Your task to perform on an android device: Search for Italian restaurants on Maps Image 0: 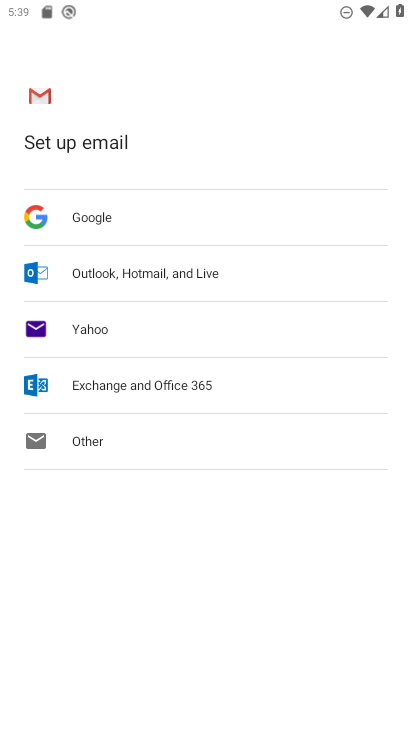
Step 0: press home button
Your task to perform on an android device: Search for Italian restaurants on Maps Image 1: 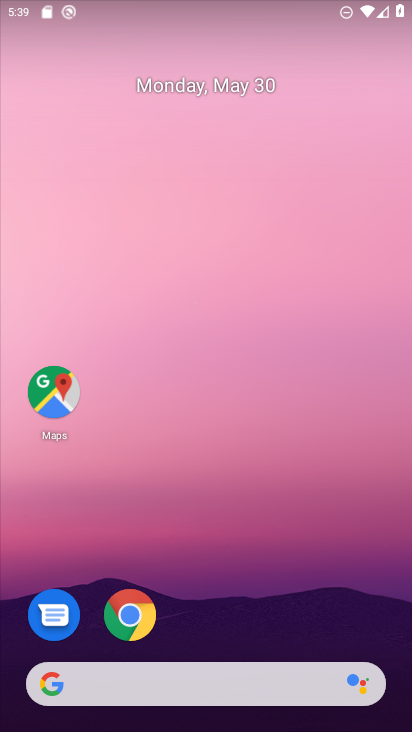
Step 1: click (71, 380)
Your task to perform on an android device: Search for Italian restaurants on Maps Image 2: 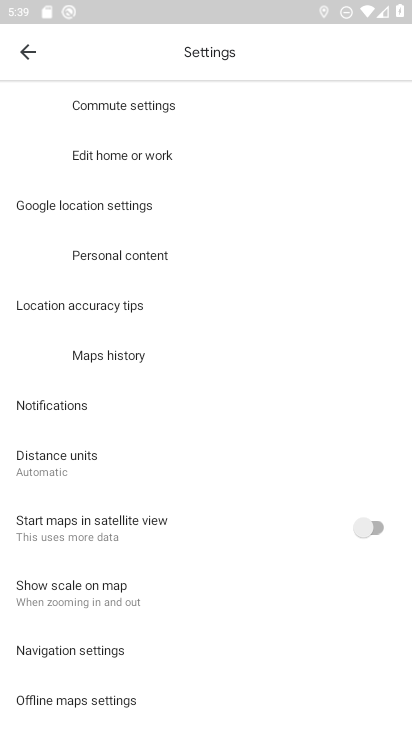
Step 2: press home button
Your task to perform on an android device: Search for Italian restaurants on Maps Image 3: 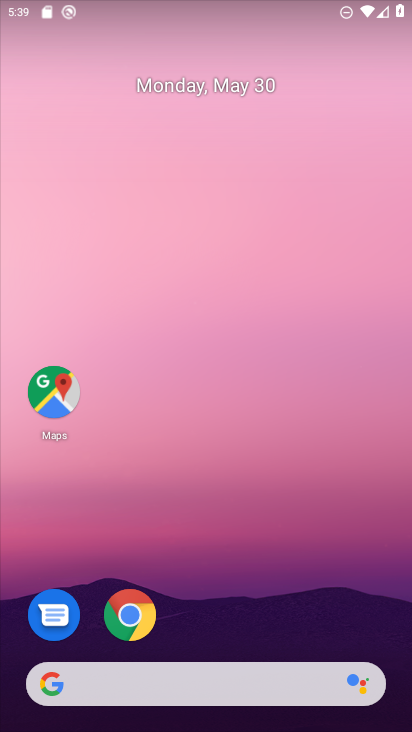
Step 3: click (32, 389)
Your task to perform on an android device: Search for Italian restaurants on Maps Image 4: 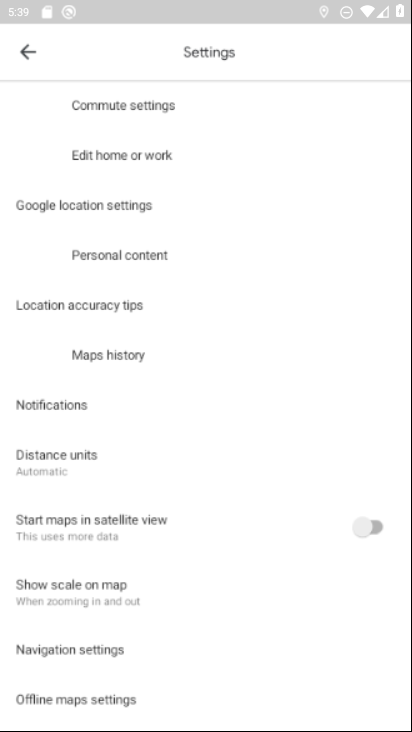
Step 4: click (35, 41)
Your task to perform on an android device: Search for Italian restaurants on Maps Image 5: 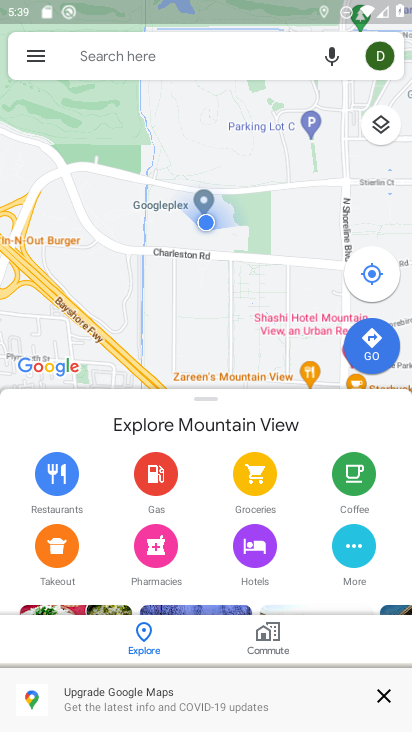
Step 5: click (124, 62)
Your task to perform on an android device: Search for Italian restaurants on Maps Image 6: 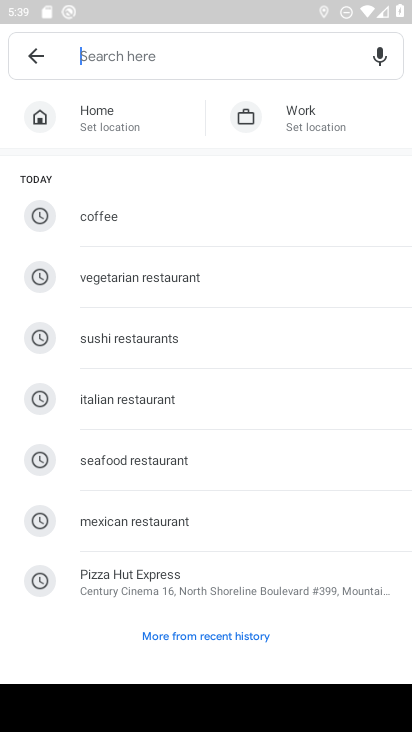
Step 6: click (134, 412)
Your task to perform on an android device: Search for Italian restaurants on Maps Image 7: 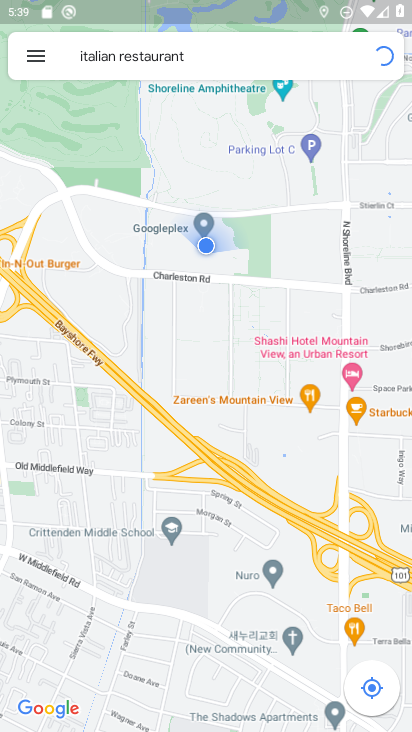
Step 7: task complete